Your task to perform on an android device: open a new tab in the chrome app Image 0: 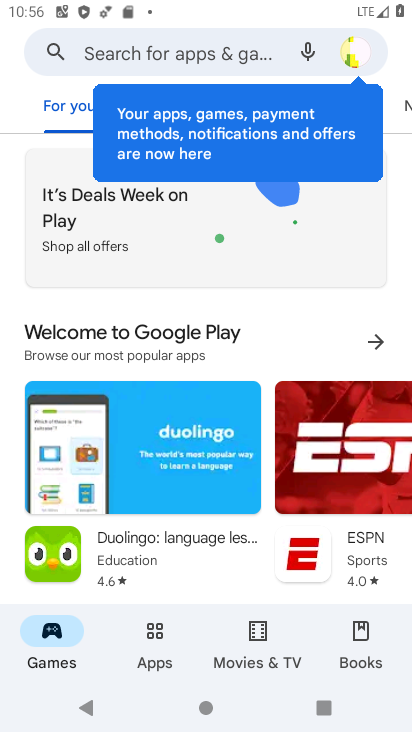
Step 0: press home button
Your task to perform on an android device: open a new tab in the chrome app Image 1: 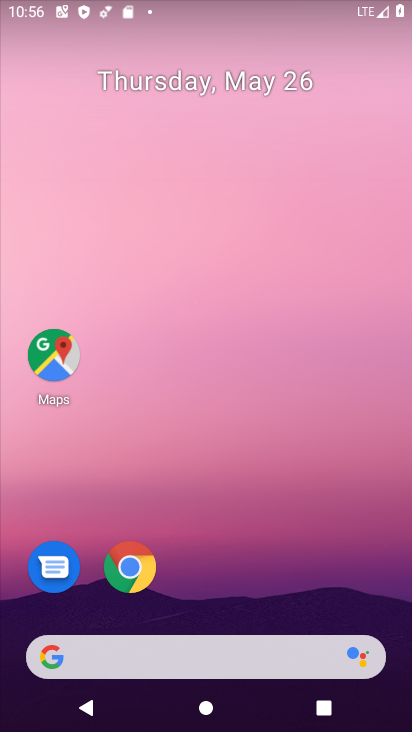
Step 1: click (123, 591)
Your task to perform on an android device: open a new tab in the chrome app Image 2: 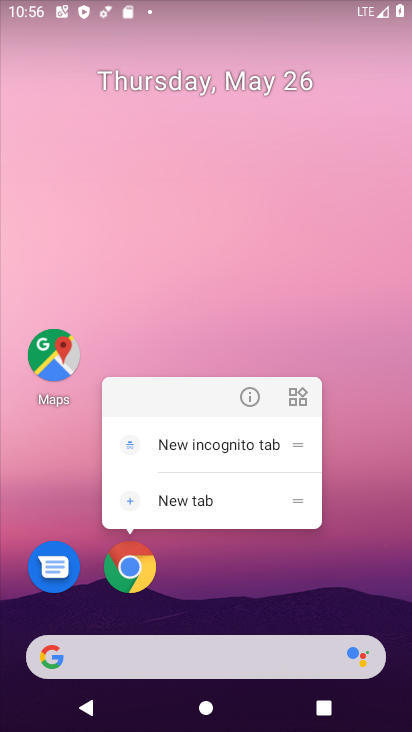
Step 2: click (130, 572)
Your task to perform on an android device: open a new tab in the chrome app Image 3: 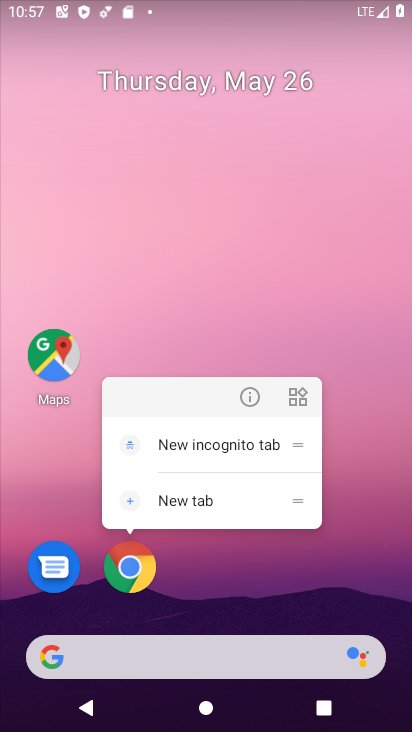
Step 3: click (148, 571)
Your task to perform on an android device: open a new tab in the chrome app Image 4: 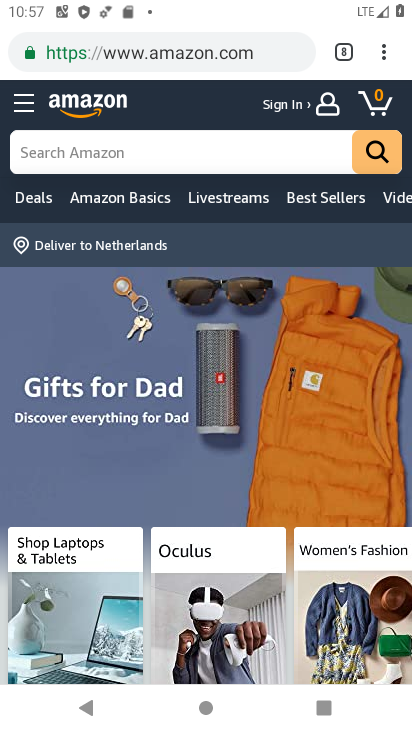
Step 4: click (384, 47)
Your task to perform on an android device: open a new tab in the chrome app Image 5: 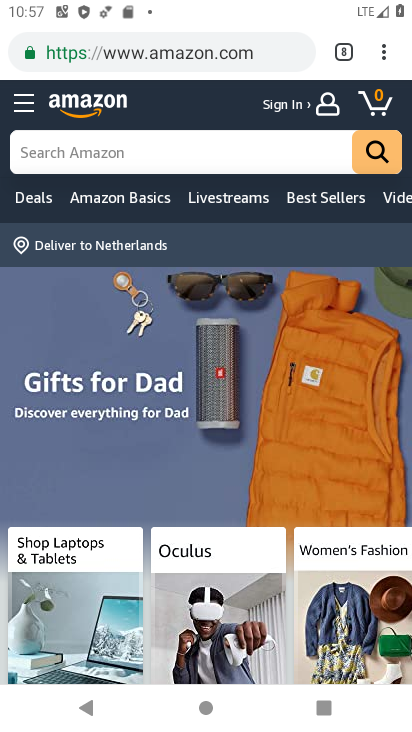
Step 5: click (385, 50)
Your task to perform on an android device: open a new tab in the chrome app Image 6: 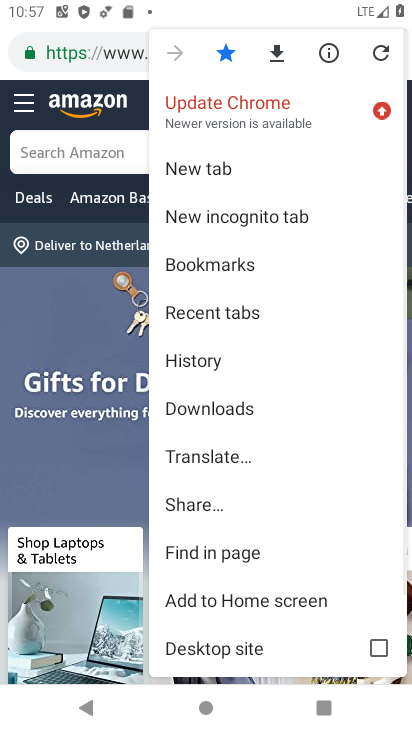
Step 6: click (189, 172)
Your task to perform on an android device: open a new tab in the chrome app Image 7: 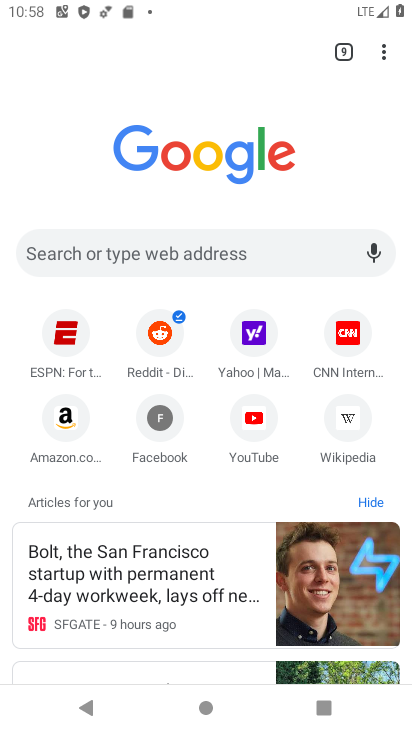
Step 7: click (381, 44)
Your task to perform on an android device: open a new tab in the chrome app Image 8: 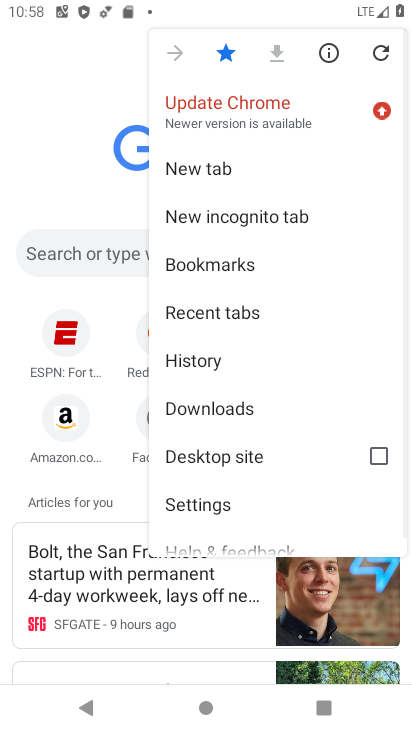
Step 8: click (293, 159)
Your task to perform on an android device: open a new tab in the chrome app Image 9: 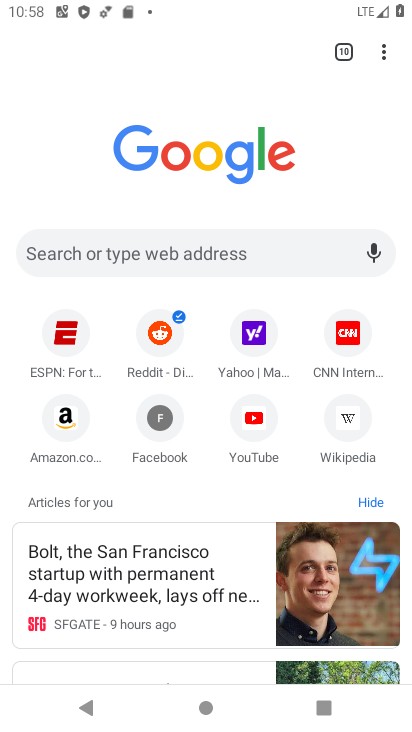
Step 9: task complete